Your task to perform on an android device: turn on the 24-hour format for clock Image 0: 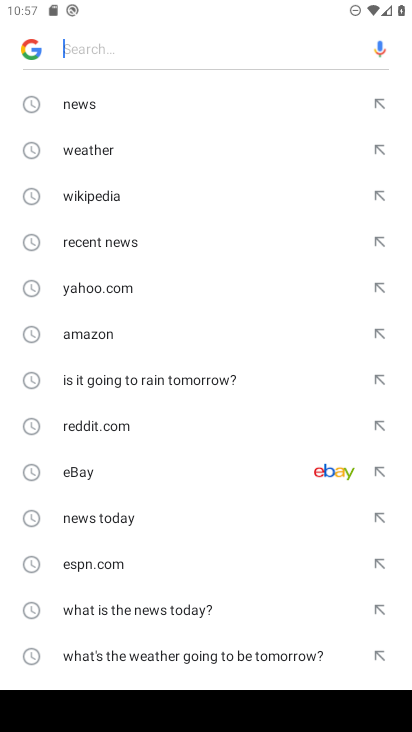
Step 0: press back button
Your task to perform on an android device: turn on the 24-hour format for clock Image 1: 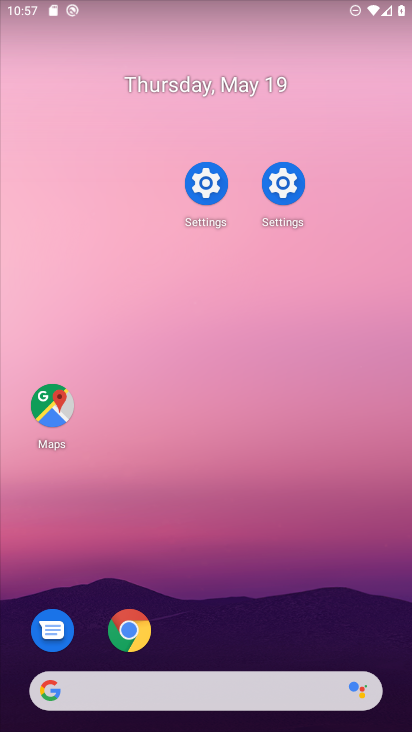
Step 1: drag from (224, 565) to (126, 18)
Your task to perform on an android device: turn on the 24-hour format for clock Image 2: 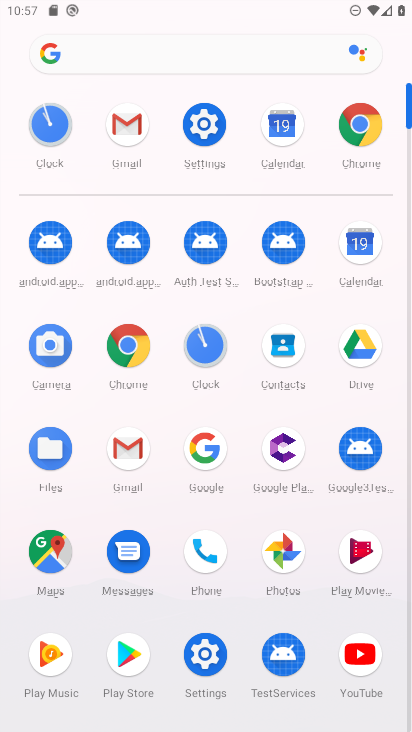
Step 2: click (190, 341)
Your task to perform on an android device: turn on the 24-hour format for clock Image 3: 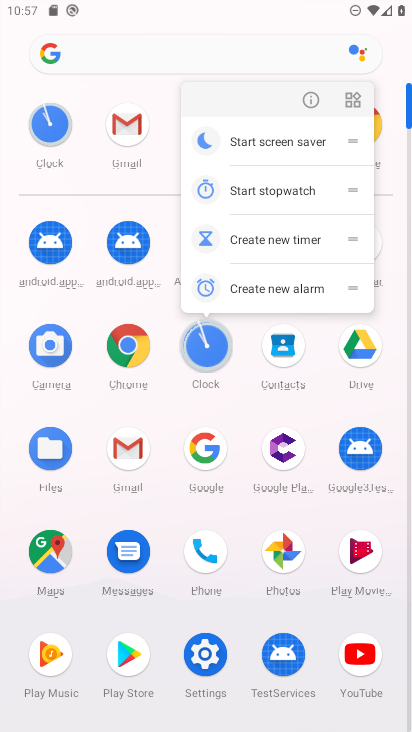
Step 3: click (193, 337)
Your task to perform on an android device: turn on the 24-hour format for clock Image 4: 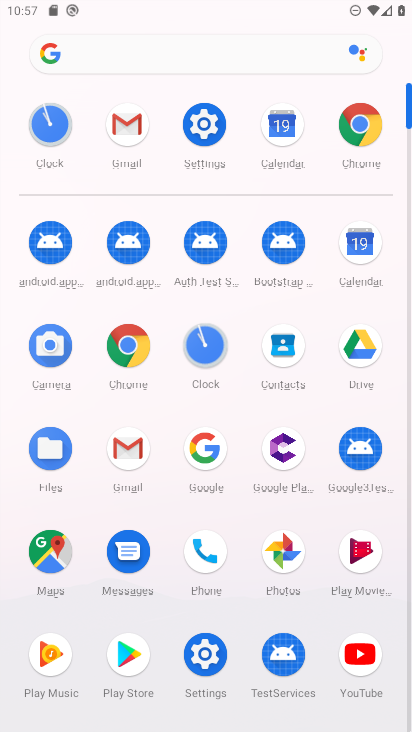
Step 4: click (194, 336)
Your task to perform on an android device: turn on the 24-hour format for clock Image 5: 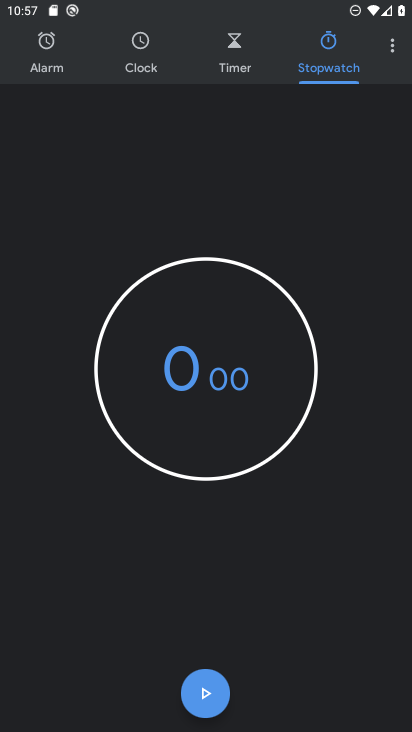
Step 5: click (392, 46)
Your task to perform on an android device: turn on the 24-hour format for clock Image 6: 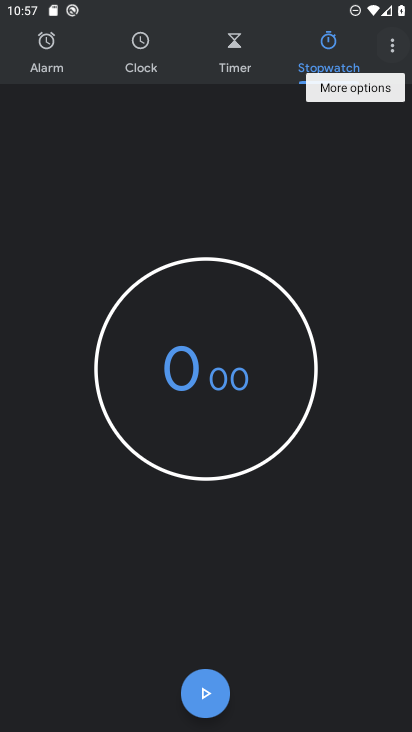
Step 6: click (391, 60)
Your task to perform on an android device: turn on the 24-hour format for clock Image 7: 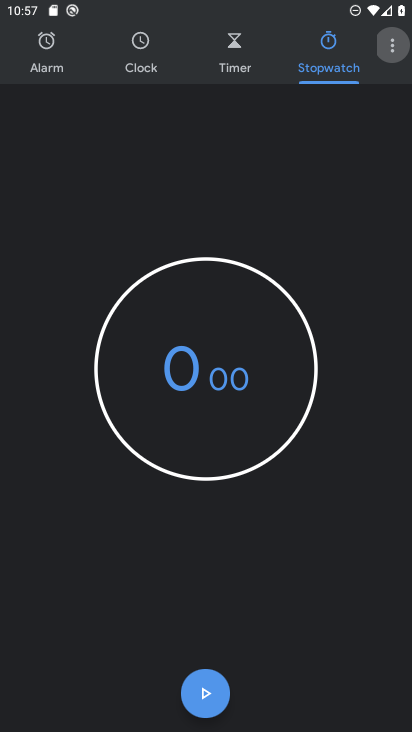
Step 7: click (391, 60)
Your task to perform on an android device: turn on the 24-hour format for clock Image 8: 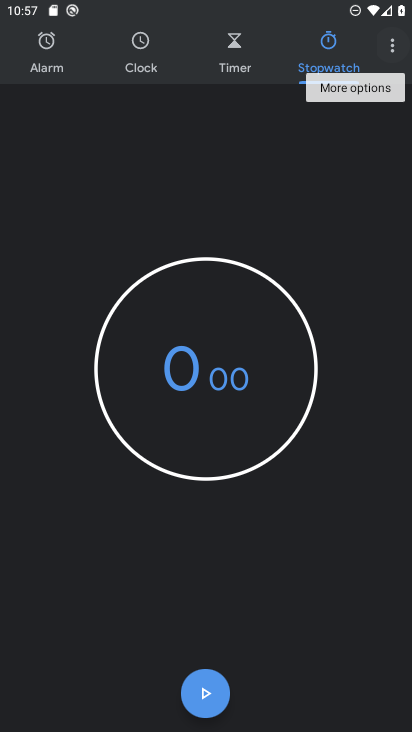
Step 8: click (391, 60)
Your task to perform on an android device: turn on the 24-hour format for clock Image 9: 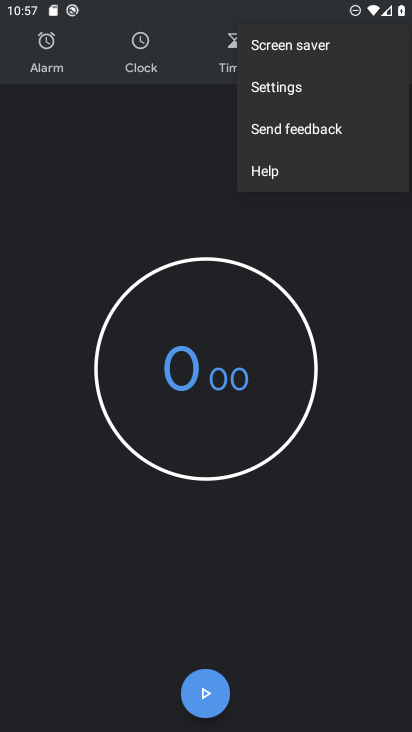
Step 9: click (290, 91)
Your task to perform on an android device: turn on the 24-hour format for clock Image 10: 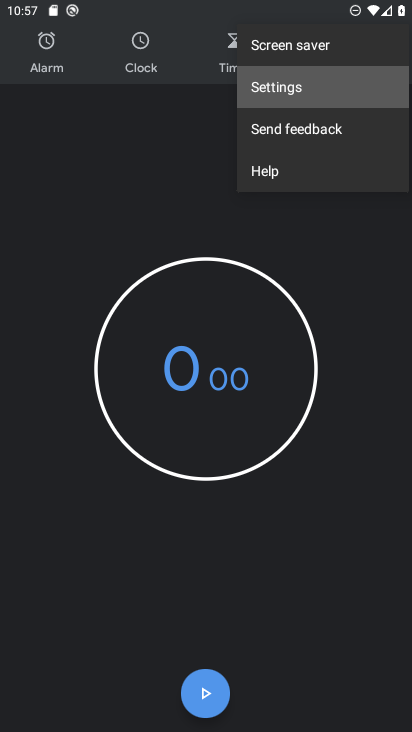
Step 10: click (292, 89)
Your task to perform on an android device: turn on the 24-hour format for clock Image 11: 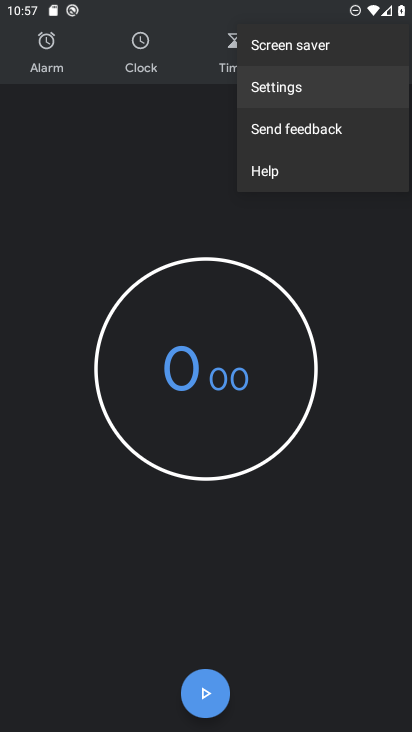
Step 11: click (294, 88)
Your task to perform on an android device: turn on the 24-hour format for clock Image 12: 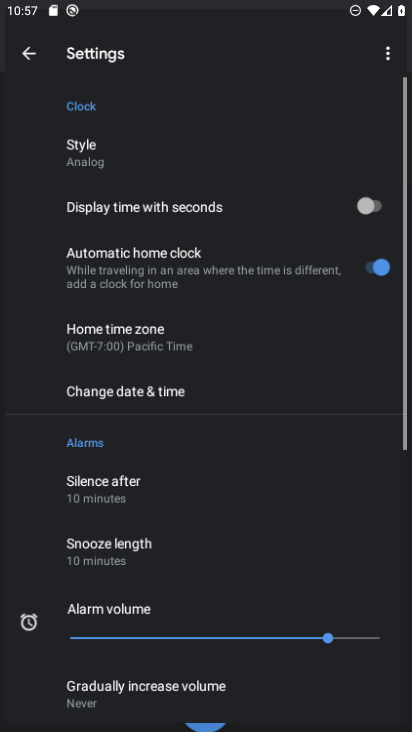
Step 12: click (296, 87)
Your task to perform on an android device: turn on the 24-hour format for clock Image 13: 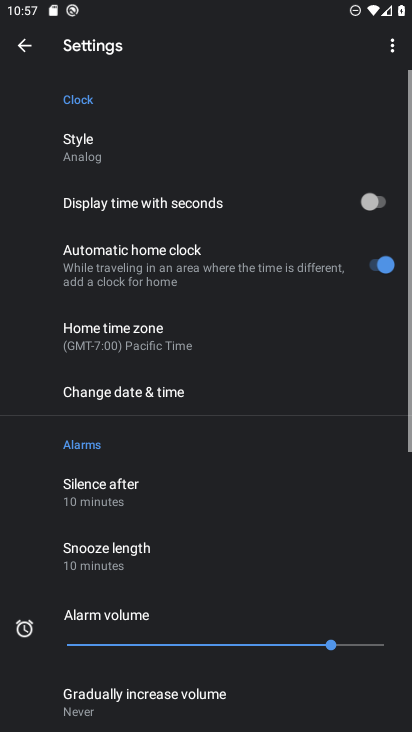
Step 13: click (296, 86)
Your task to perform on an android device: turn on the 24-hour format for clock Image 14: 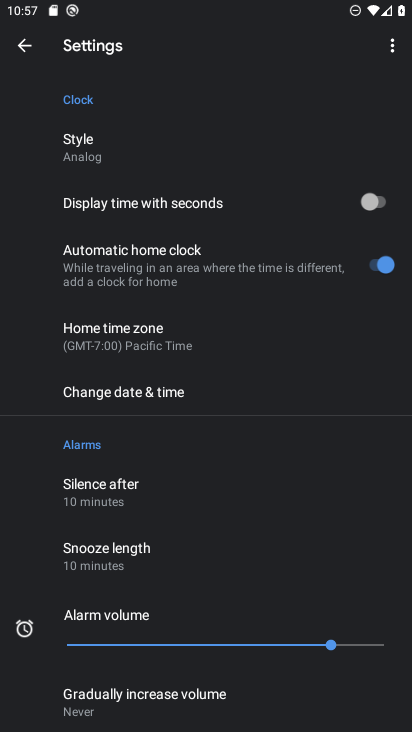
Step 14: click (103, 398)
Your task to perform on an android device: turn on the 24-hour format for clock Image 15: 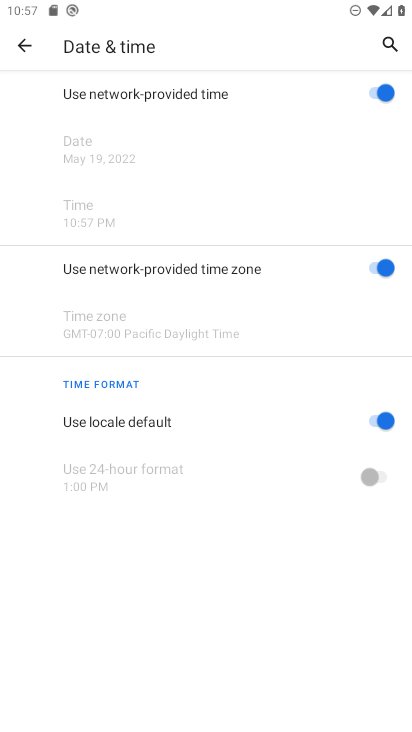
Step 15: click (381, 424)
Your task to perform on an android device: turn on the 24-hour format for clock Image 16: 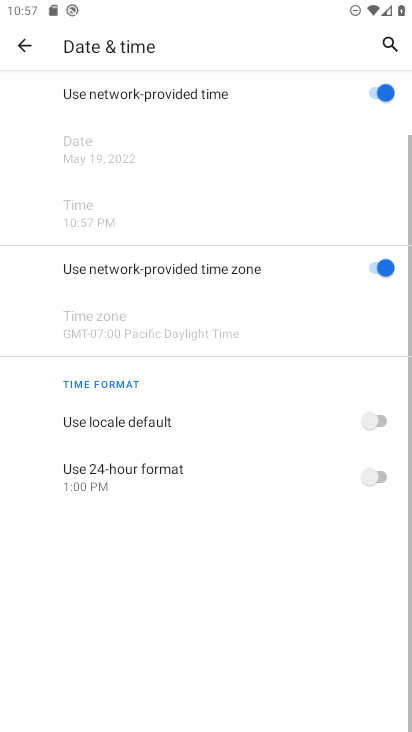
Step 16: click (370, 477)
Your task to perform on an android device: turn on the 24-hour format for clock Image 17: 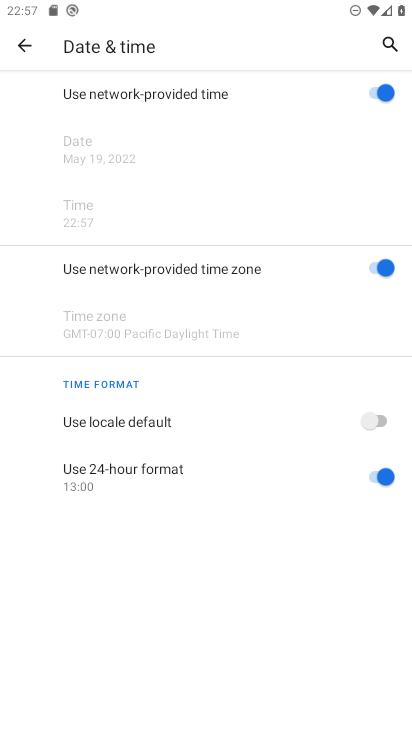
Step 17: task complete